Your task to perform on an android device: open a bookmark in the chrome app Image 0: 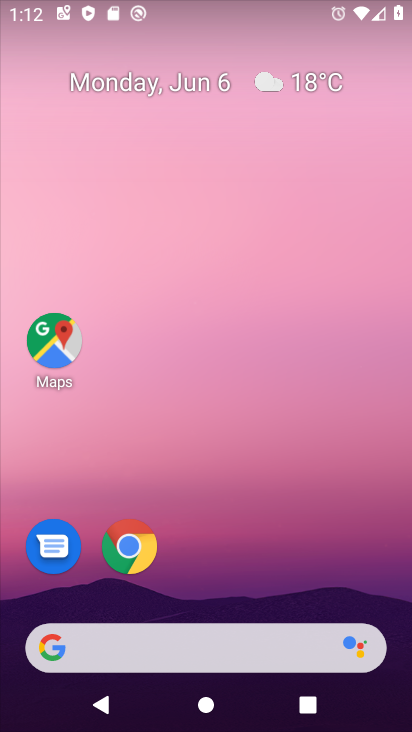
Step 0: click (145, 548)
Your task to perform on an android device: open a bookmark in the chrome app Image 1: 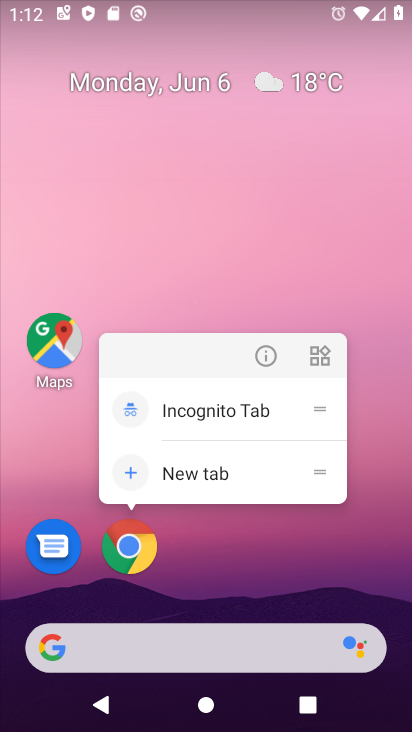
Step 1: click (155, 543)
Your task to perform on an android device: open a bookmark in the chrome app Image 2: 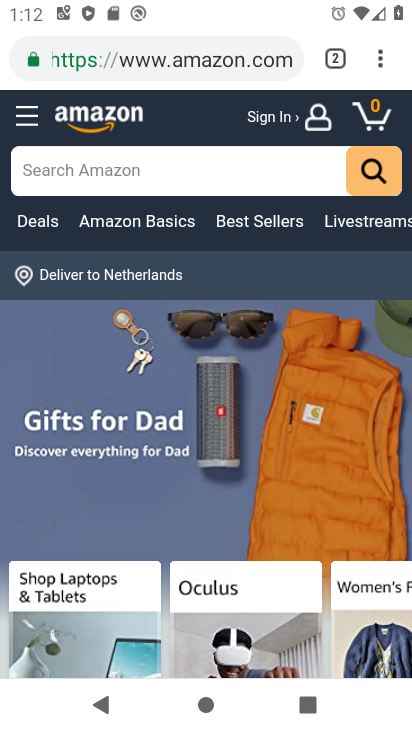
Step 2: click (380, 59)
Your task to perform on an android device: open a bookmark in the chrome app Image 3: 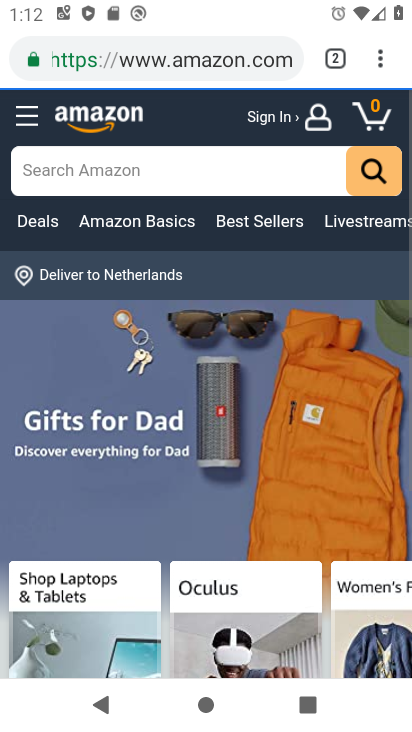
Step 3: task complete